Your task to perform on an android device: toggle show notifications on the lock screen Image 0: 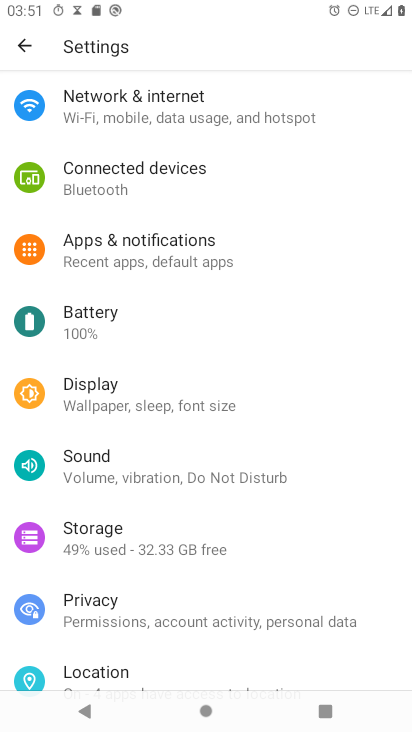
Step 0: click (94, 659)
Your task to perform on an android device: toggle show notifications on the lock screen Image 1: 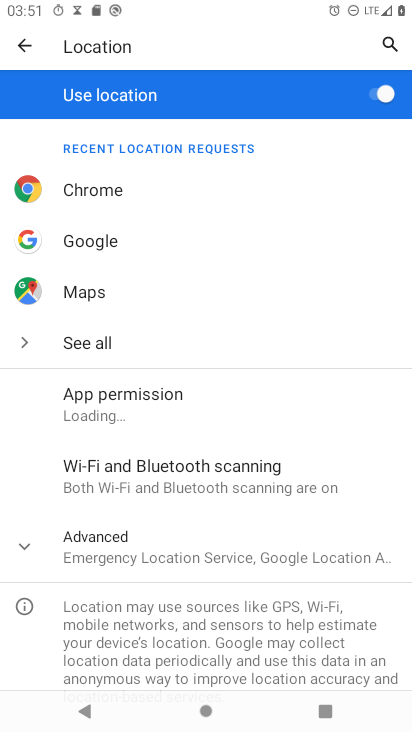
Step 1: click (23, 48)
Your task to perform on an android device: toggle show notifications on the lock screen Image 2: 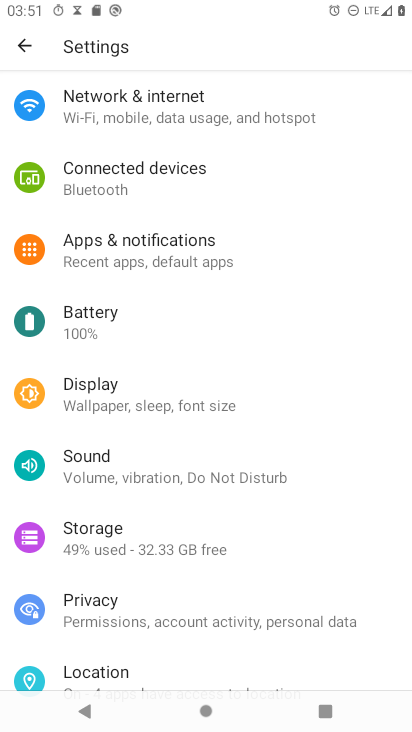
Step 2: click (119, 230)
Your task to perform on an android device: toggle show notifications on the lock screen Image 3: 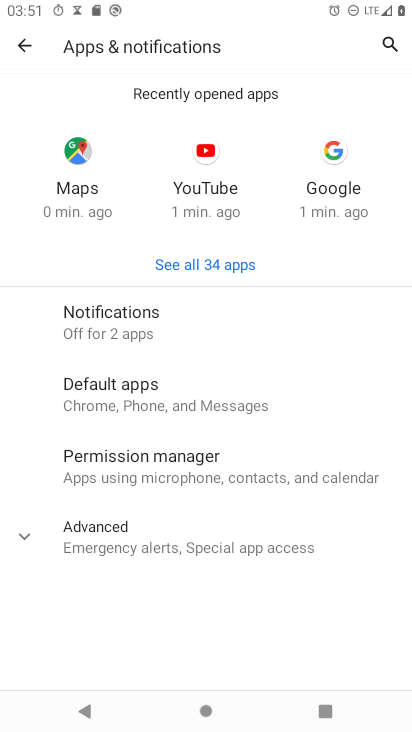
Step 3: click (90, 328)
Your task to perform on an android device: toggle show notifications on the lock screen Image 4: 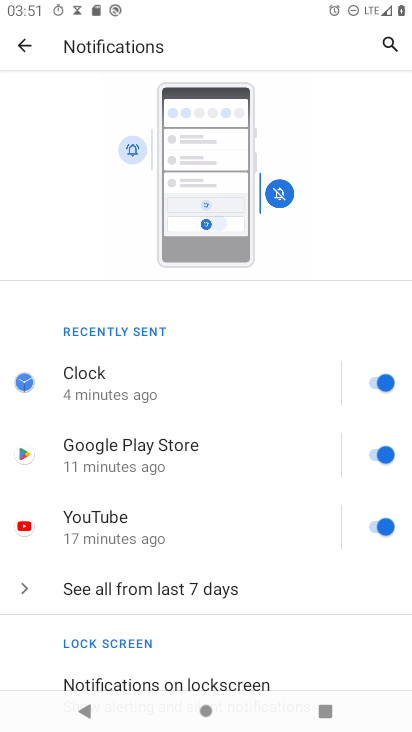
Step 4: click (179, 674)
Your task to perform on an android device: toggle show notifications on the lock screen Image 5: 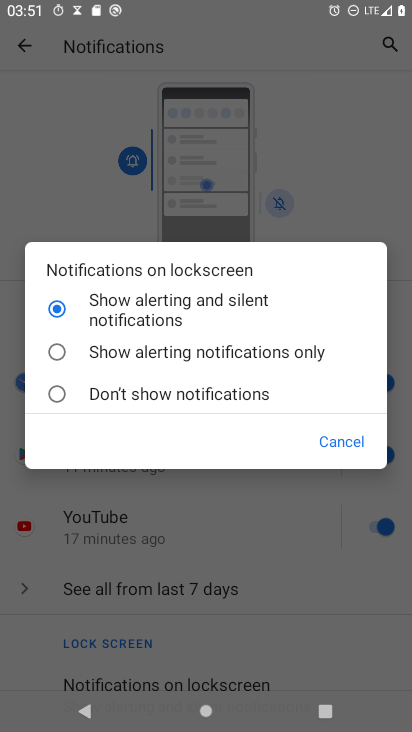
Step 5: click (134, 360)
Your task to perform on an android device: toggle show notifications on the lock screen Image 6: 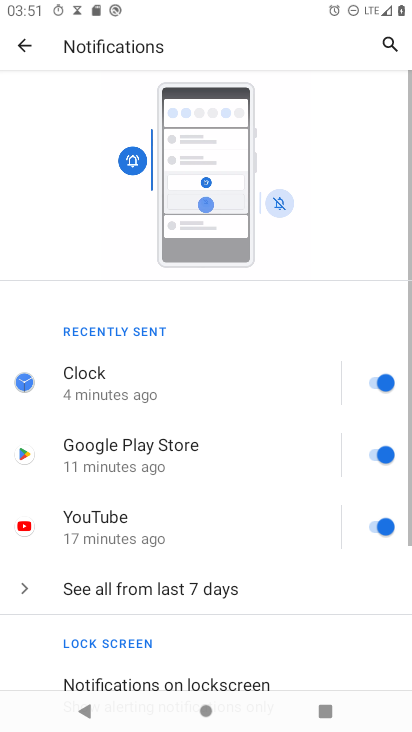
Step 6: task complete